Your task to perform on an android device: Open the calendar and show me this week's events? Image 0: 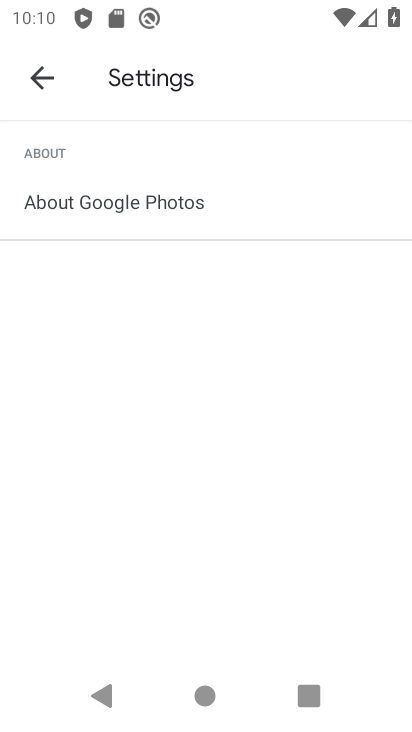
Step 0: press home button
Your task to perform on an android device: Open the calendar and show me this week's events? Image 1: 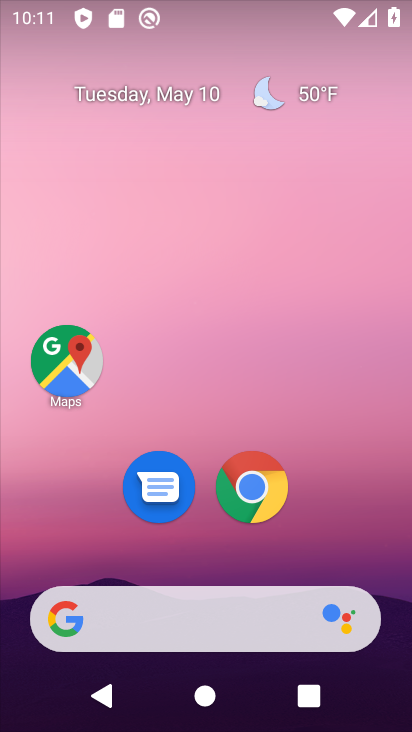
Step 1: click (372, 89)
Your task to perform on an android device: Open the calendar and show me this week's events? Image 2: 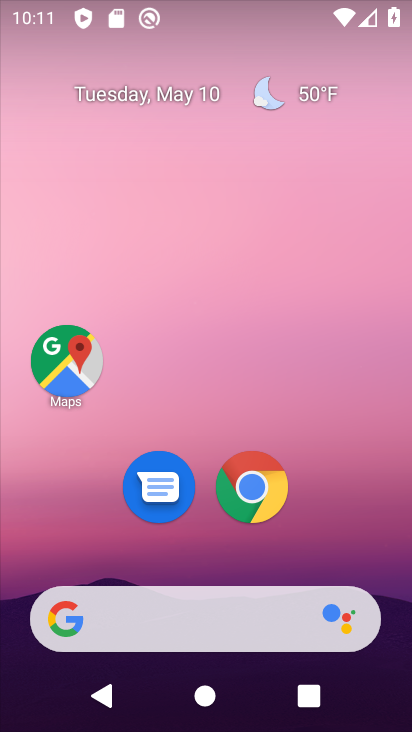
Step 2: drag from (364, 511) to (321, 5)
Your task to perform on an android device: Open the calendar and show me this week's events? Image 3: 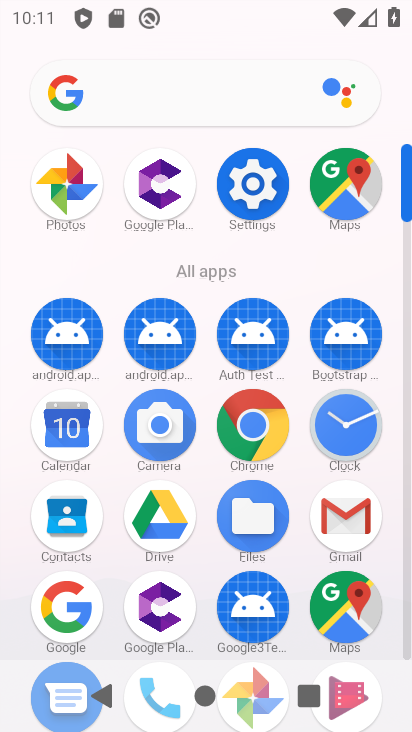
Step 3: click (55, 424)
Your task to perform on an android device: Open the calendar and show me this week's events? Image 4: 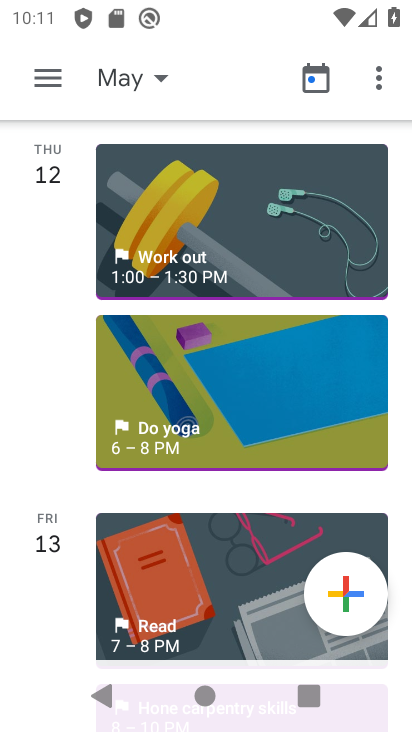
Step 4: click (161, 68)
Your task to perform on an android device: Open the calendar and show me this week's events? Image 5: 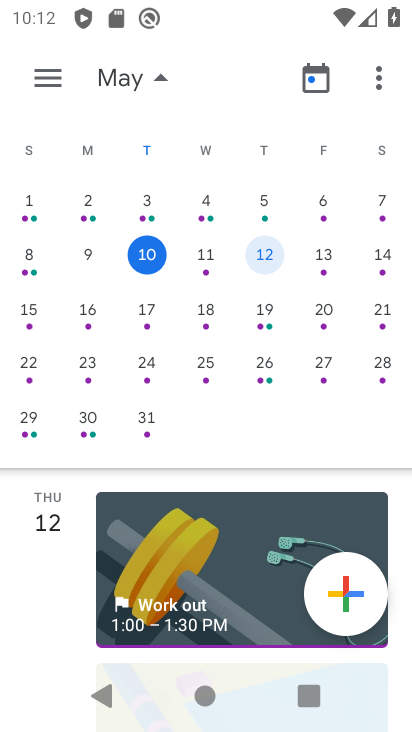
Step 5: click (164, 73)
Your task to perform on an android device: Open the calendar and show me this week's events? Image 6: 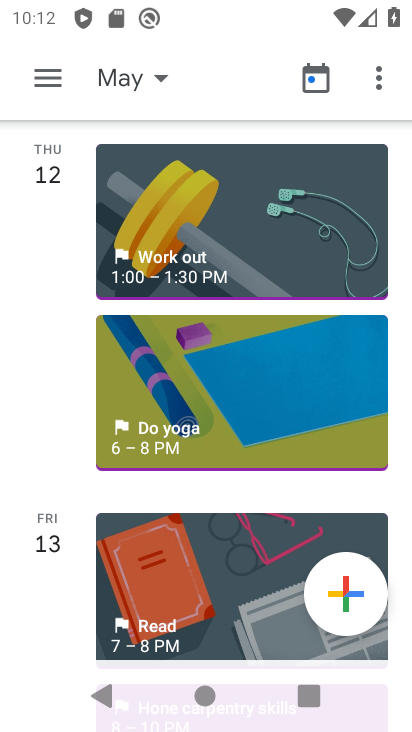
Step 6: task complete